Your task to perform on an android device: set an alarm Image 0: 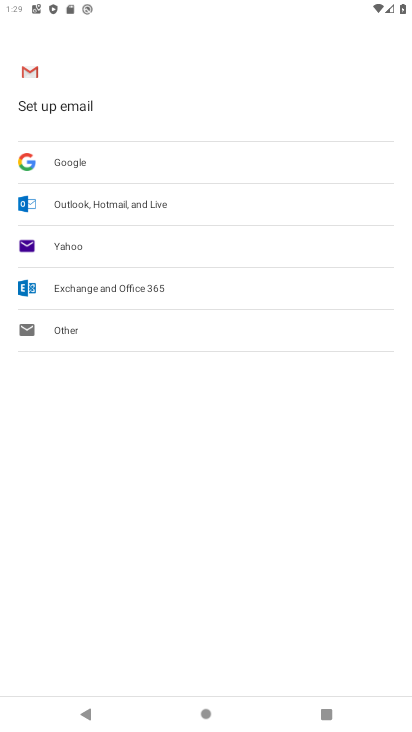
Step 0: press home button
Your task to perform on an android device: set an alarm Image 1: 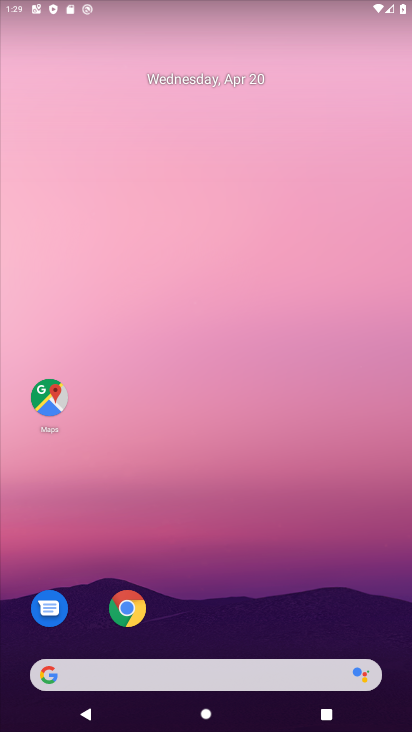
Step 1: drag from (212, 726) to (171, 7)
Your task to perform on an android device: set an alarm Image 2: 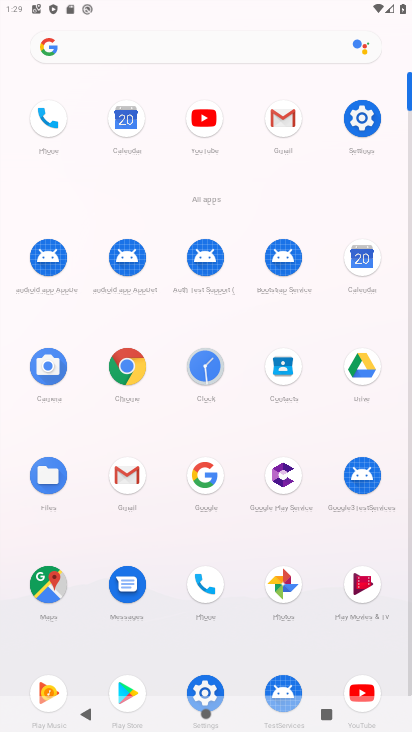
Step 2: click (206, 364)
Your task to perform on an android device: set an alarm Image 3: 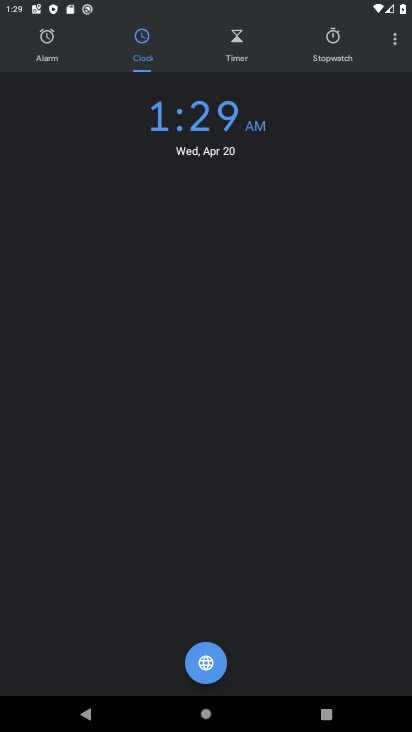
Step 3: click (49, 45)
Your task to perform on an android device: set an alarm Image 4: 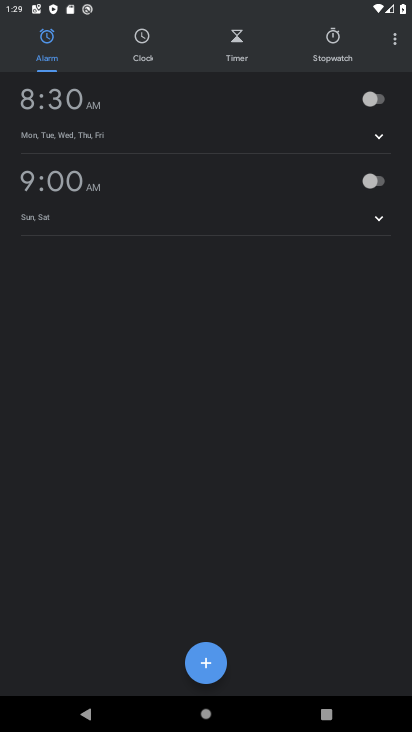
Step 4: click (203, 658)
Your task to perform on an android device: set an alarm Image 5: 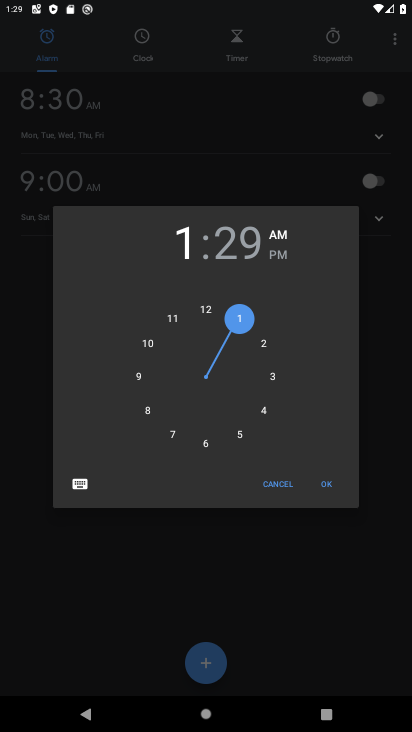
Step 5: click (242, 437)
Your task to perform on an android device: set an alarm Image 6: 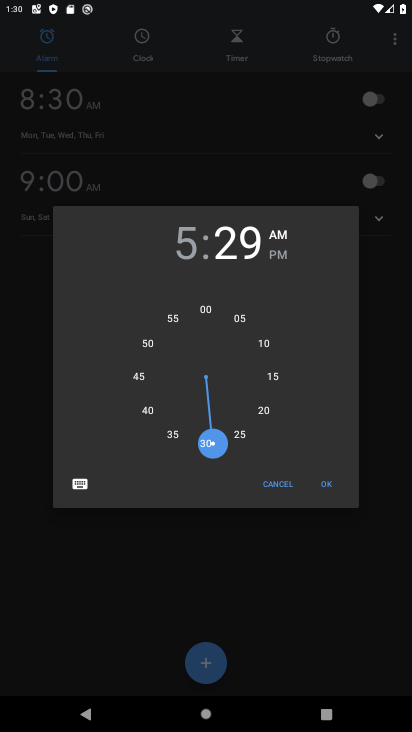
Step 6: click (321, 485)
Your task to perform on an android device: set an alarm Image 7: 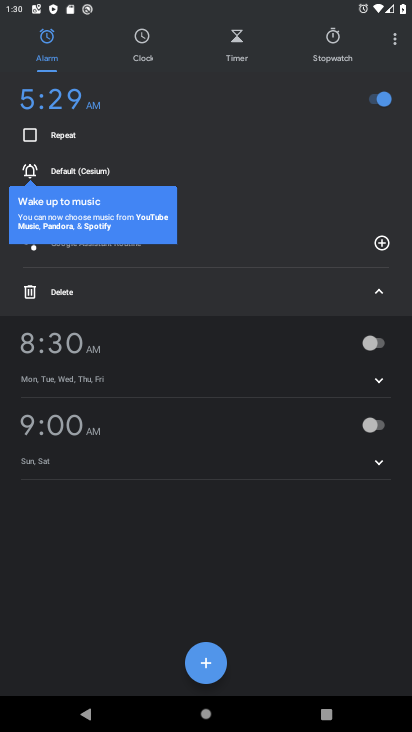
Step 7: task complete